Your task to perform on an android device: move an email to a new category in the gmail app Image 0: 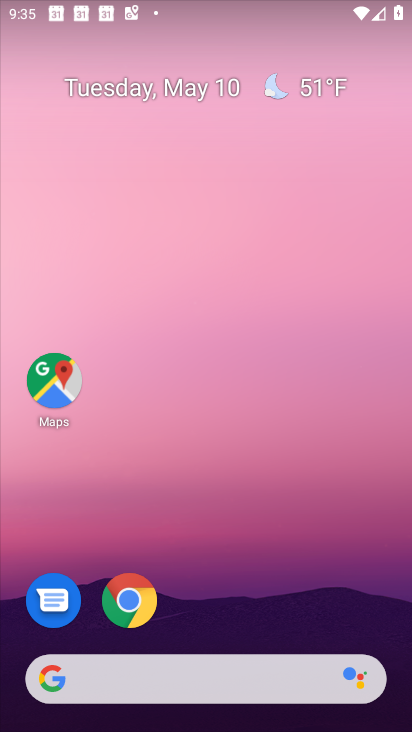
Step 0: drag from (222, 621) to (205, 38)
Your task to perform on an android device: move an email to a new category in the gmail app Image 1: 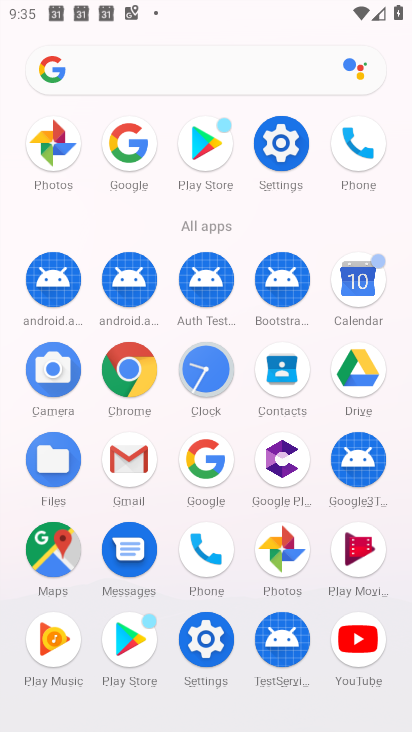
Step 1: click (123, 471)
Your task to perform on an android device: move an email to a new category in the gmail app Image 2: 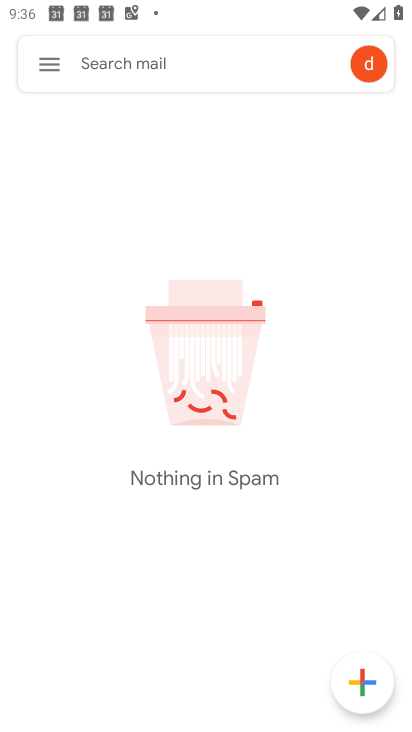
Step 2: click (39, 64)
Your task to perform on an android device: move an email to a new category in the gmail app Image 3: 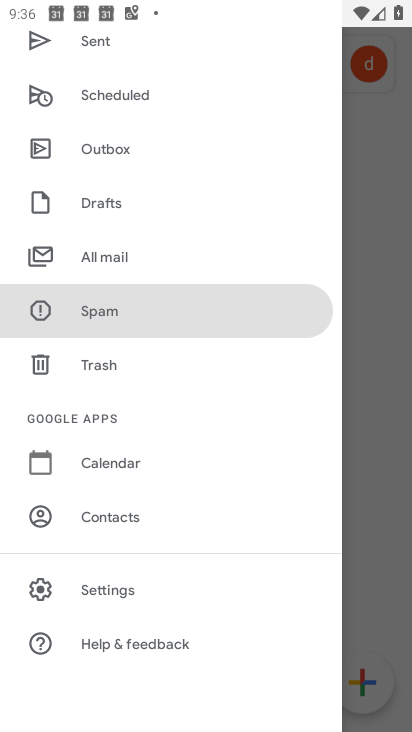
Step 3: click (77, 251)
Your task to perform on an android device: move an email to a new category in the gmail app Image 4: 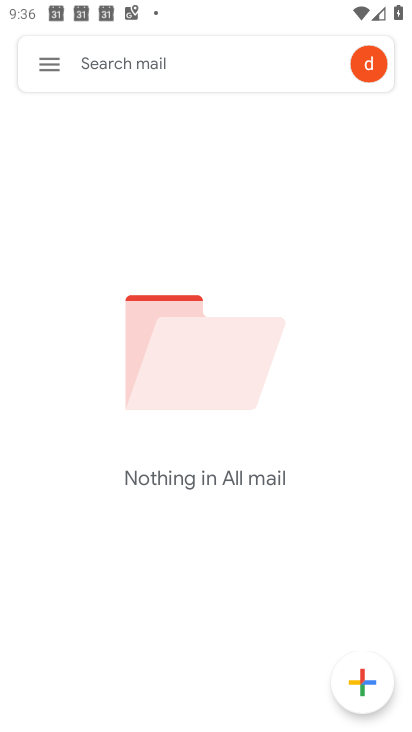
Step 4: task complete